Your task to perform on an android device: Open Chrome and go to settings Image 0: 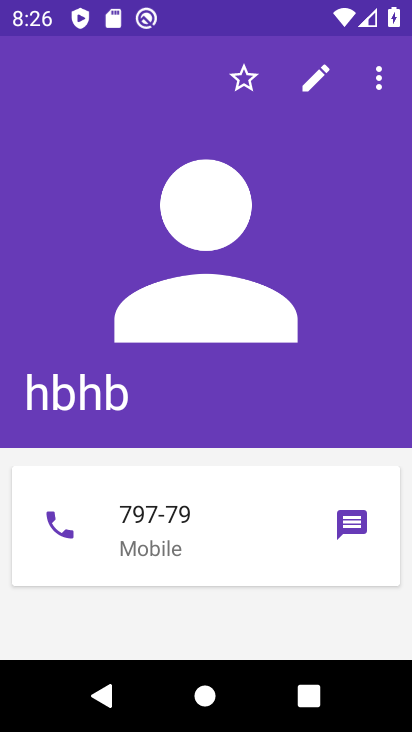
Step 0: press back button
Your task to perform on an android device: Open Chrome and go to settings Image 1: 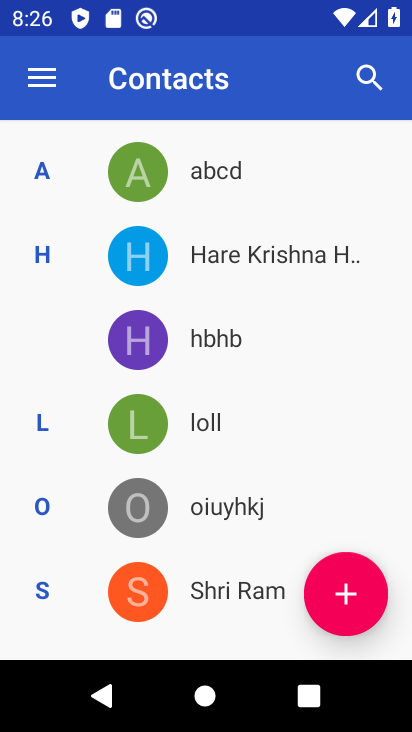
Step 1: press back button
Your task to perform on an android device: Open Chrome and go to settings Image 2: 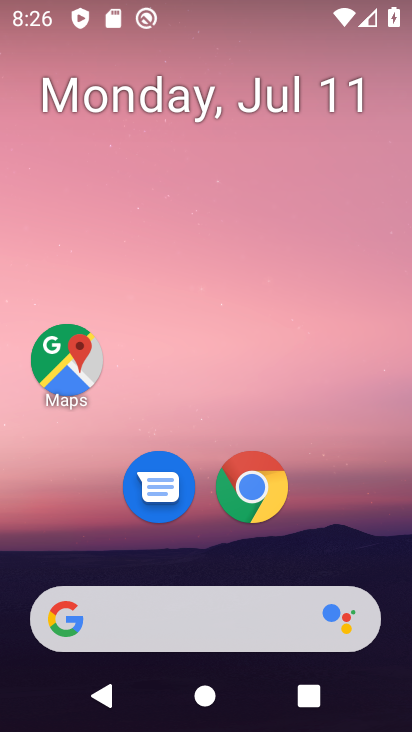
Step 2: drag from (204, 561) to (294, 109)
Your task to perform on an android device: Open Chrome and go to settings Image 3: 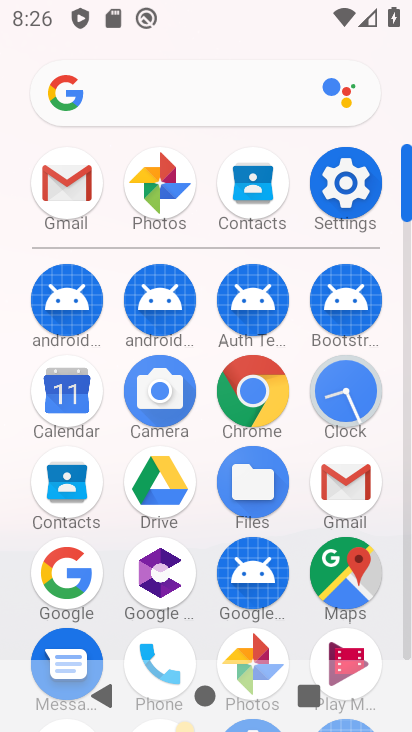
Step 3: click (264, 387)
Your task to perform on an android device: Open Chrome and go to settings Image 4: 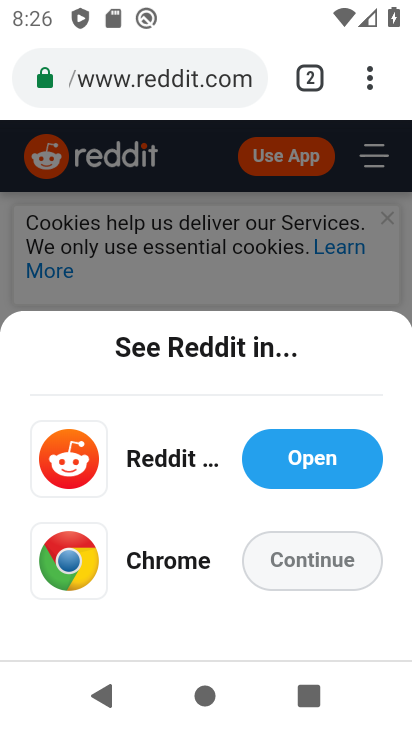
Step 4: task complete